Your task to perform on an android device: Check the weather Image 0: 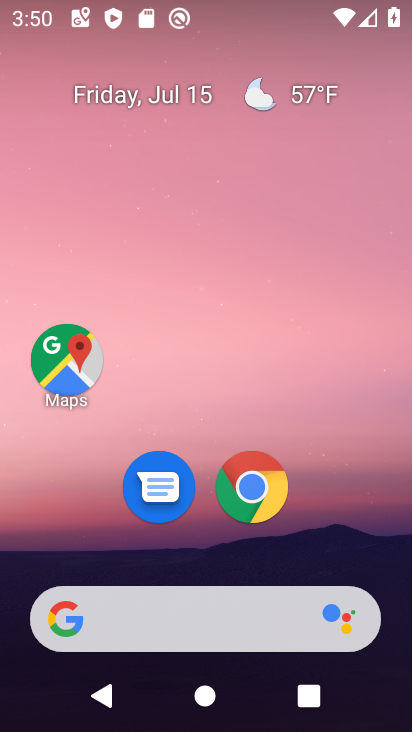
Step 0: drag from (249, 558) to (241, 168)
Your task to perform on an android device: Check the weather Image 1: 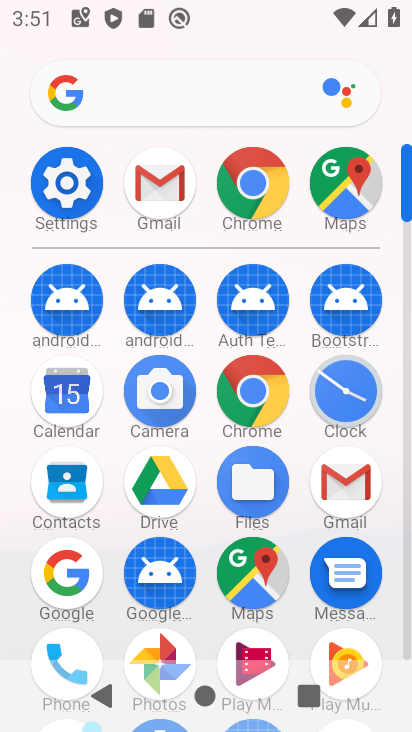
Step 1: drag from (198, 500) to (207, 265)
Your task to perform on an android device: Check the weather Image 2: 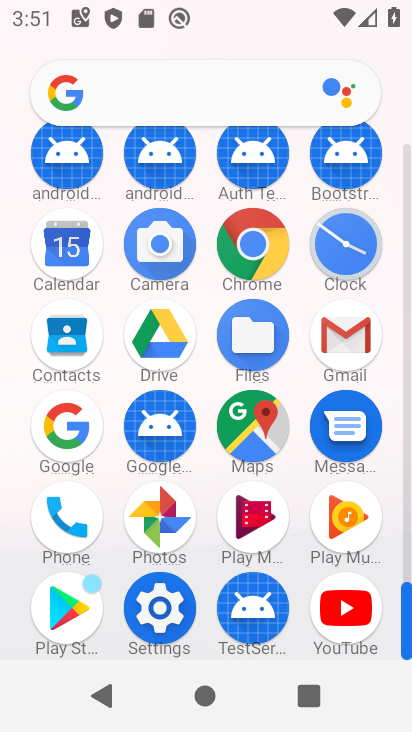
Step 2: click (67, 447)
Your task to perform on an android device: Check the weather Image 3: 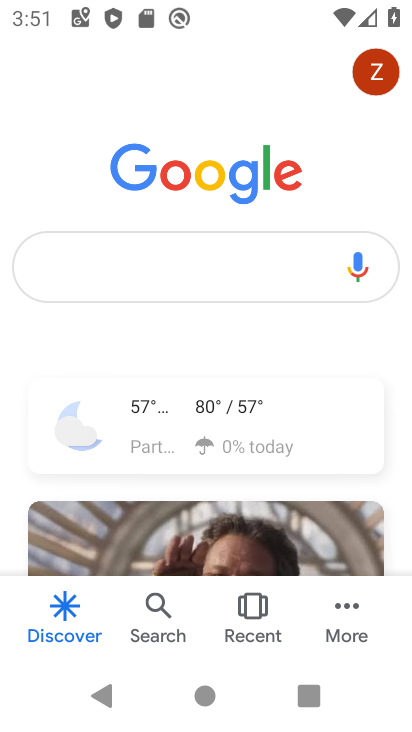
Step 3: click (200, 272)
Your task to perform on an android device: Check the weather Image 4: 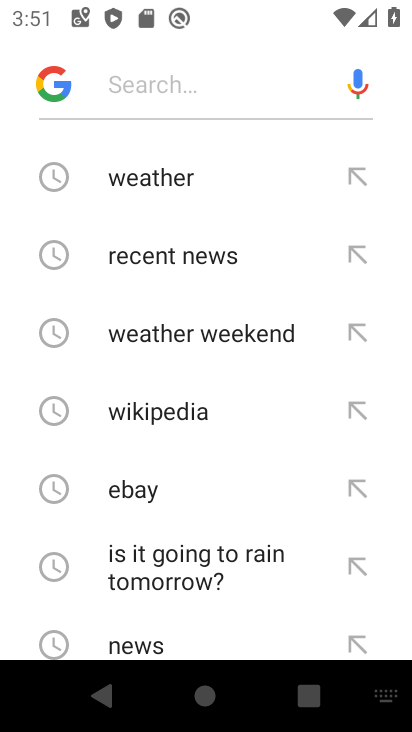
Step 4: click (222, 180)
Your task to perform on an android device: Check the weather Image 5: 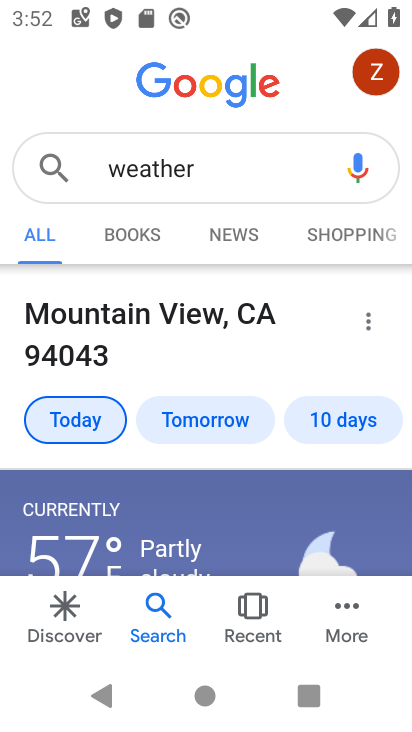
Step 5: task complete